Your task to perform on an android device: toggle notification dots Image 0: 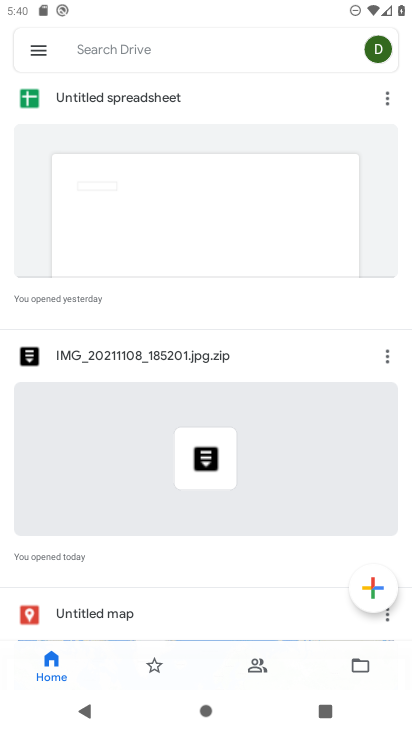
Step 0: press home button
Your task to perform on an android device: toggle notification dots Image 1: 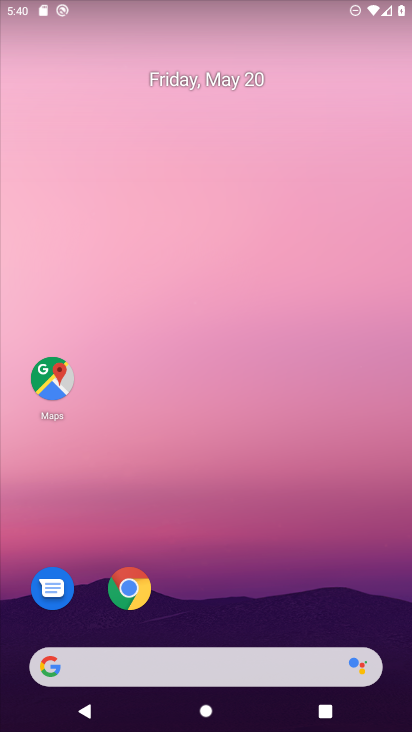
Step 1: drag from (223, 598) to (279, 219)
Your task to perform on an android device: toggle notification dots Image 2: 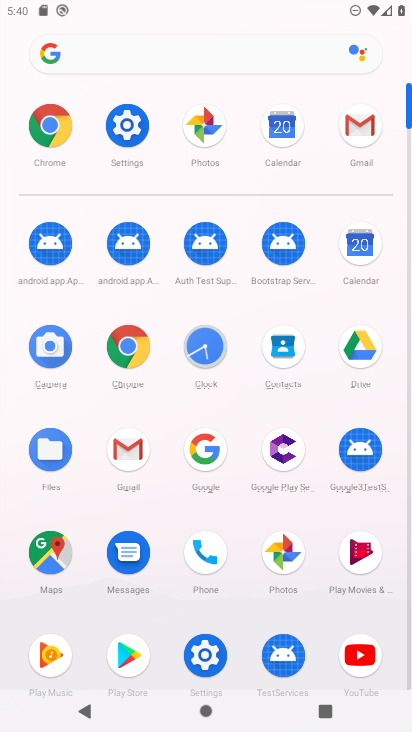
Step 2: click (136, 145)
Your task to perform on an android device: toggle notification dots Image 3: 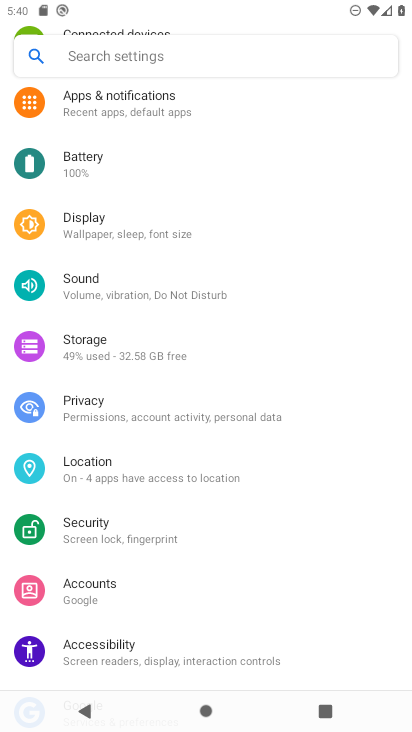
Step 3: click (146, 125)
Your task to perform on an android device: toggle notification dots Image 4: 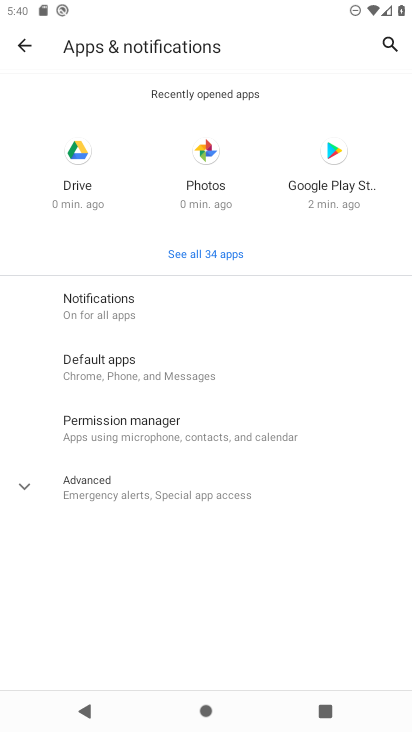
Step 4: click (83, 481)
Your task to perform on an android device: toggle notification dots Image 5: 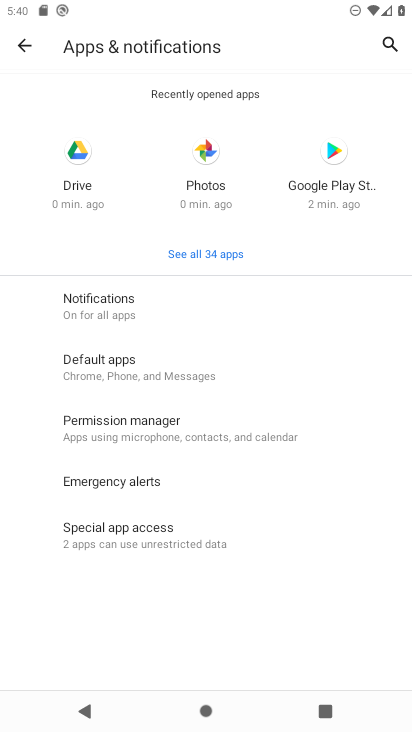
Step 5: click (118, 312)
Your task to perform on an android device: toggle notification dots Image 6: 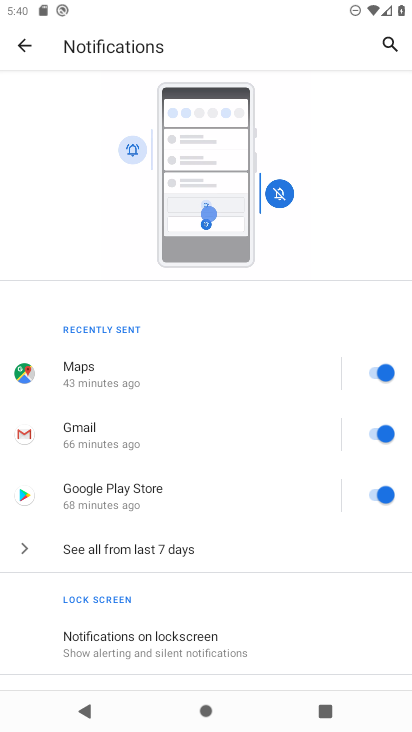
Step 6: drag from (248, 680) to (323, 471)
Your task to perform on an android device: toggle notification dots Image 7: 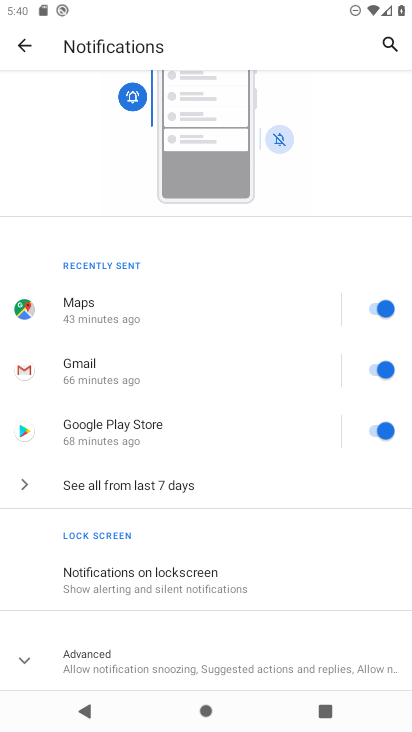
Step 7: click (116, 656)
Your task to perform on an android device: toggle notification dots Image 8: 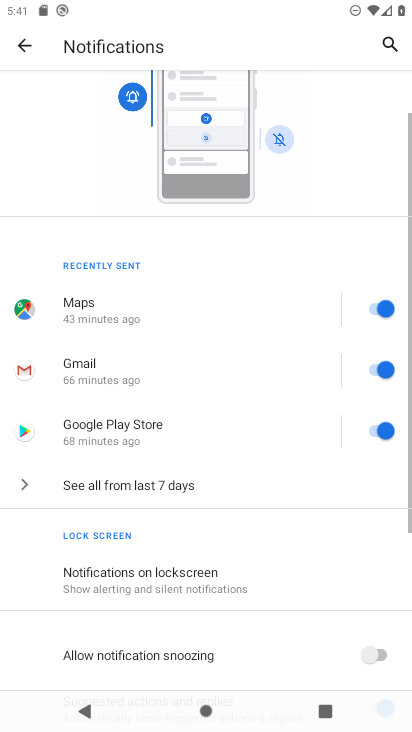
Step 8: drag from (115, 657) to (162, 341)
Your task to perform on an android device: toggle notification dots Image 9: 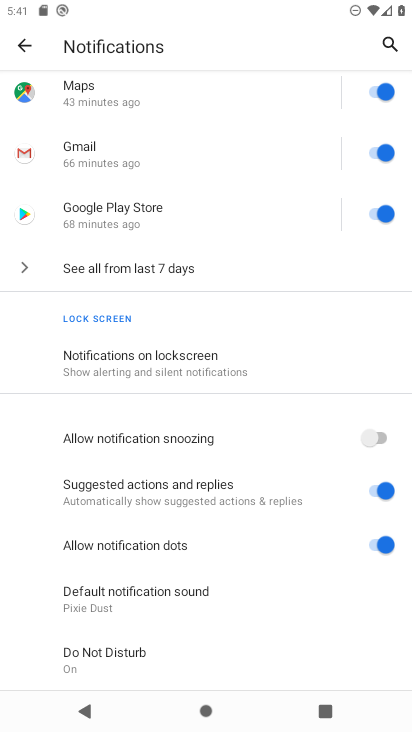
Step 9: click (370, 546)
Your task to perform on an android device: toggle notification dots Image 10: 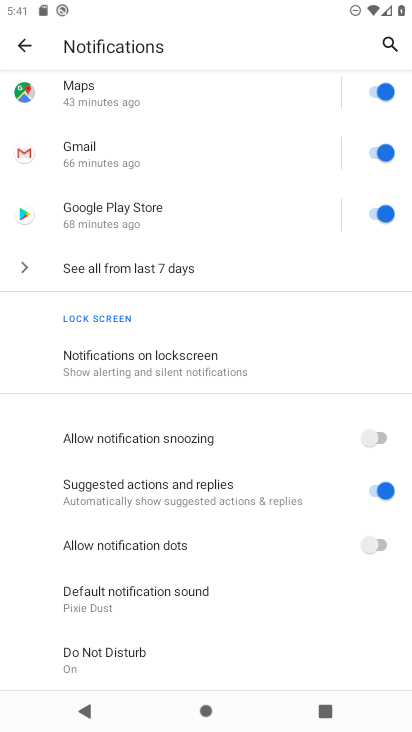
Step 10: task complete